Your task to perform on an android device: Open calendar and show me the fourth week of next month Image 0: 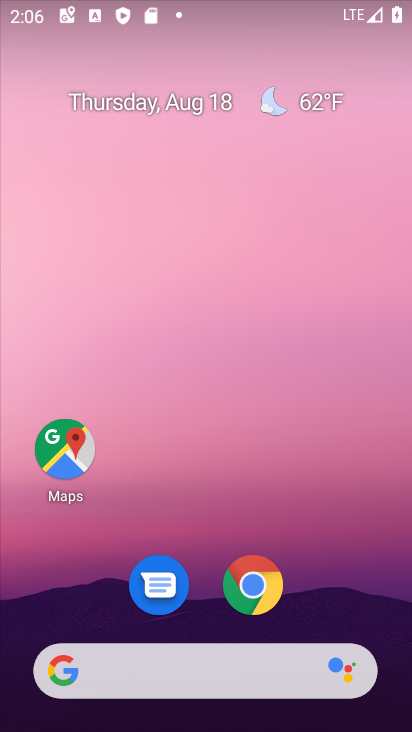
Step 0: drag from (344, 581) to (357, 13)
Your task to perform on an android device: Open calendar and show me the fourth week of next month Image 1: 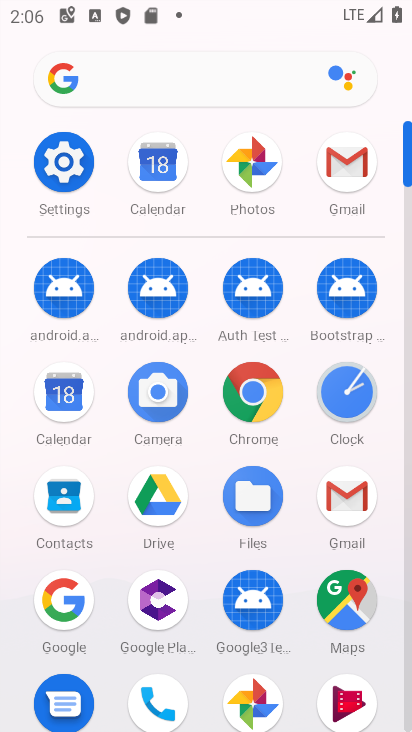
Step 1: click (163, 157)
Your task to perform on an android device: Open calendar and show me the fourth week of next month Image 2: 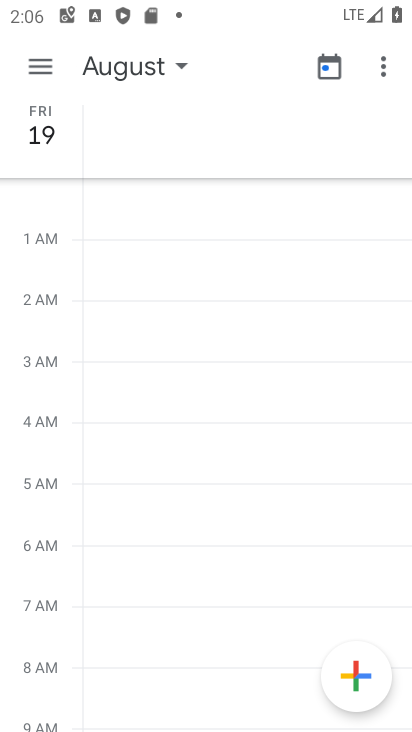
Step 2: click (41, 64)
Your task to perform on an android device: Open calendar and show me the fourth week of next month Image 3: 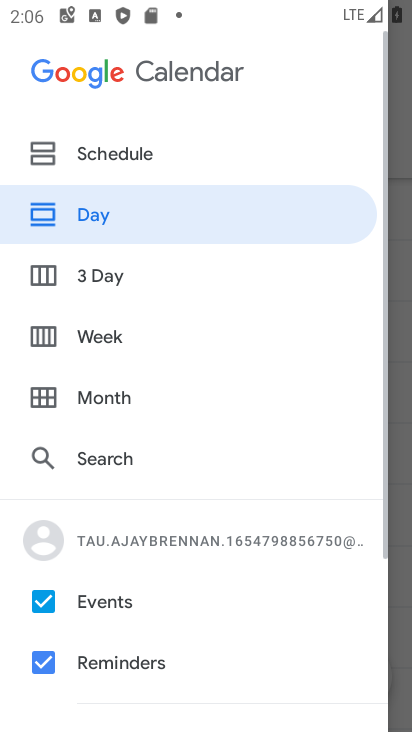
Step 3: click (80, 390)
Your task to perform on an android device: Open calendar and show me the fourth week of next month Image 4: 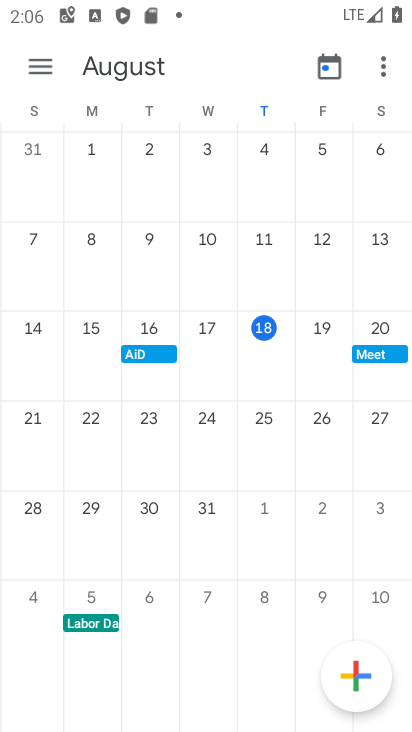
Step 4: drag from (359, 265) to (13, 283)
Your task to perform on an android device: Open calendar and show me the fourth week of next month Image 5: 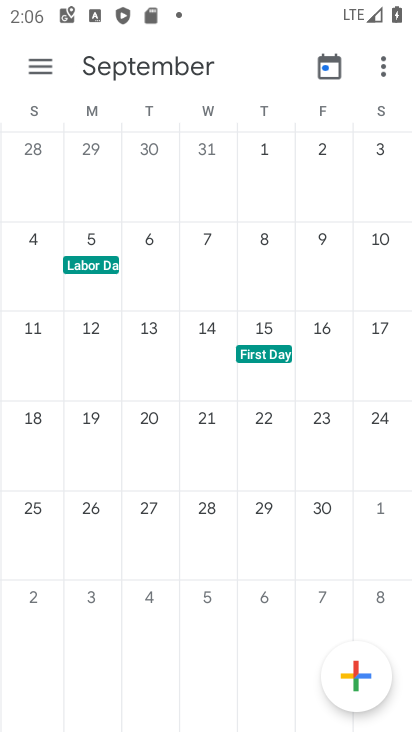
Step 5: click (35, 507)
Your task to perform on an android device: Open calendar and show me the fourth week of next month Image 6: 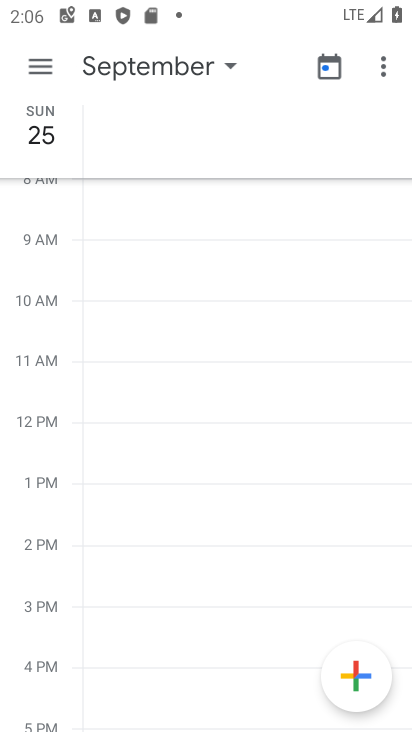
Step 6: click (42, 68)
Your task to perform on an android device: Open calendar and show me the fourth week of next month Image 7: 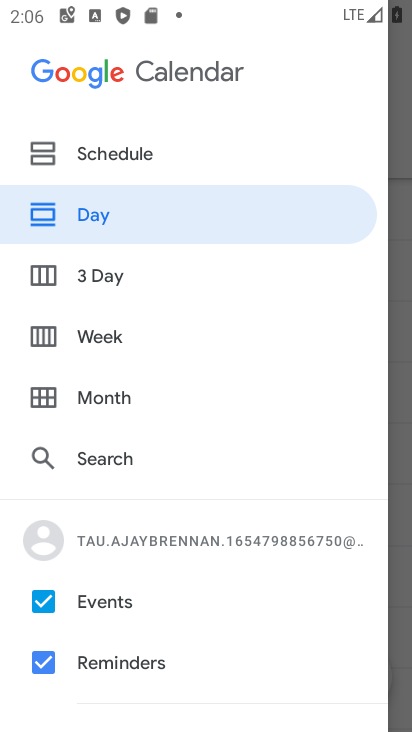
Step 7: click (50, 332)
Your task to perform on an android device: Open calendar and show me the fourth week of next month Image 8: 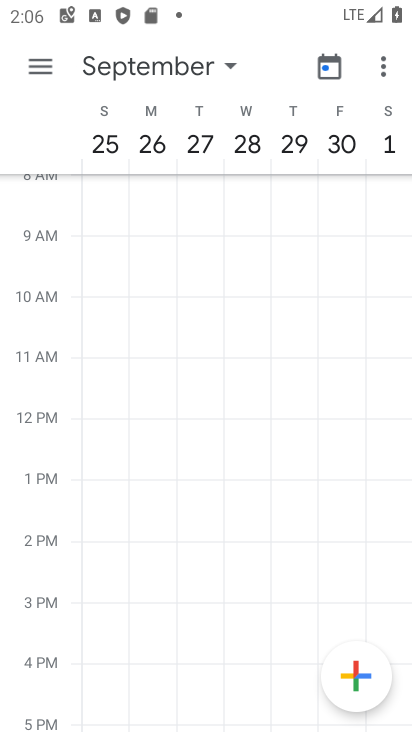
Step 8: task complete